Your task to perform on an android device: Open Google Maps Image 0: 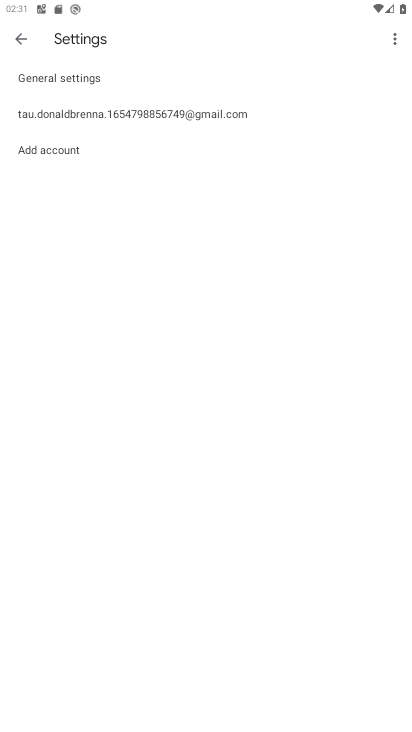
Step 0: press home button
Your task to perform on an android device: Open Google Maps Image 1: 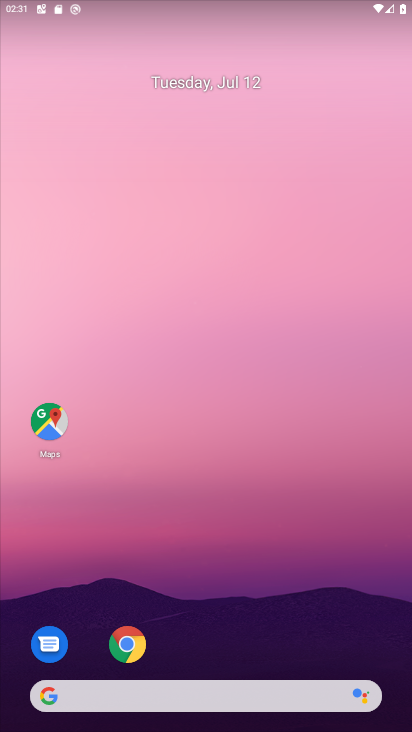
Step 1: click (47, 433)
Your task to perform on an android device: Open Google Maps Image 2: 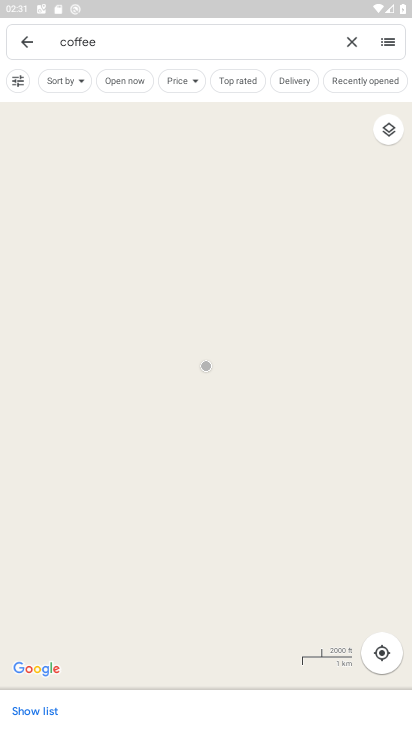
Step 2: click (31, 40)
Your task to perform on an android device: Open Google Maps Image 3: 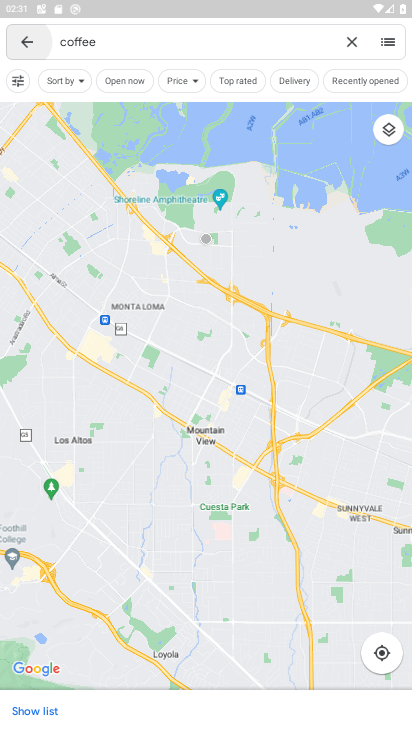
Step 3: task complete